Your task to perform on an android device: change the clock display to digital Image 0: 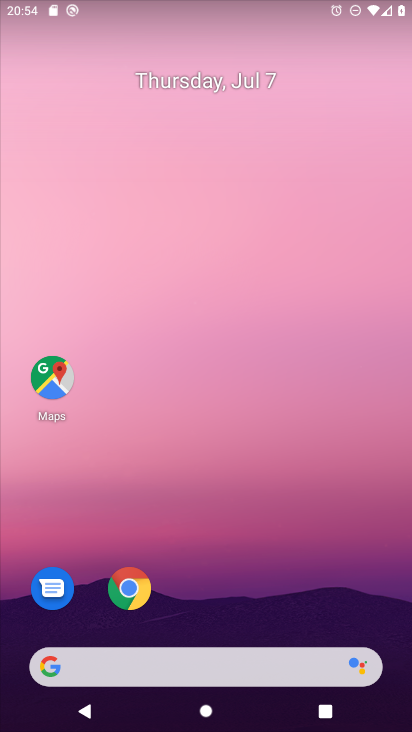
Step 0: drag from (214, 543) to (204, 244)
Your task to perform on an android device: change the clock display to digital Image 1: 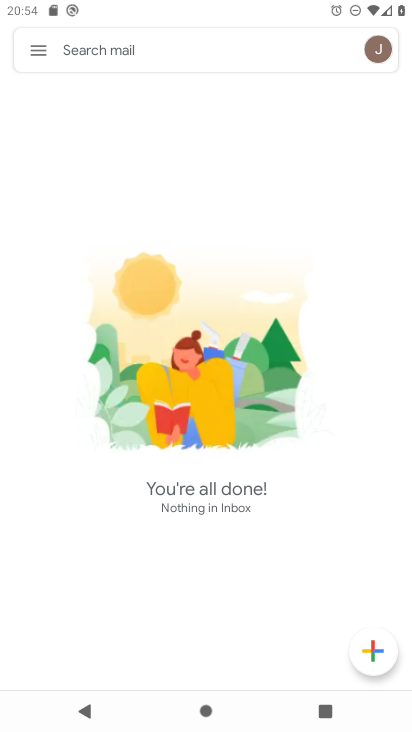
Step 1: press home button
Your task to perform on an android device: change the clock display to digital Image 2: 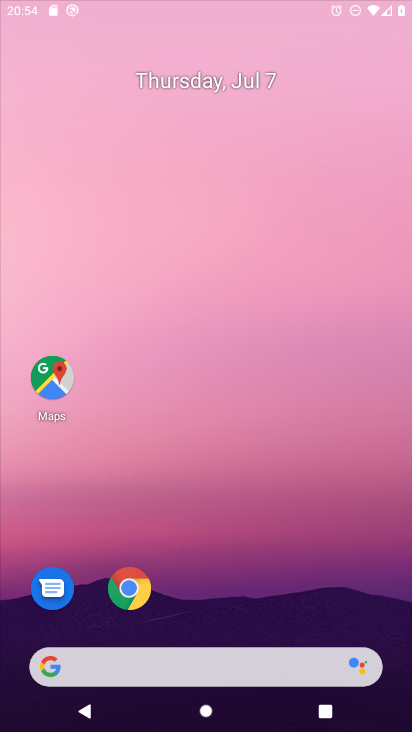
Step 2: drag from (263, 624) to (241, 256)
Your task to perform on an android device: change the clock display to digital Image 3: 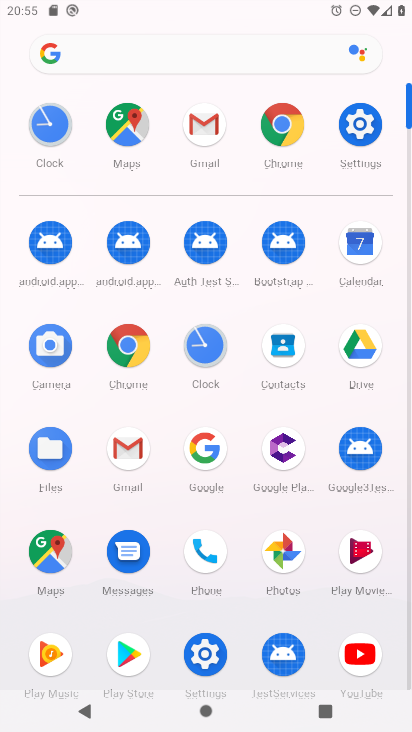
Step 3: click (217, 346)
Your task to perform on an android device: change the clock display to digital Image 4: 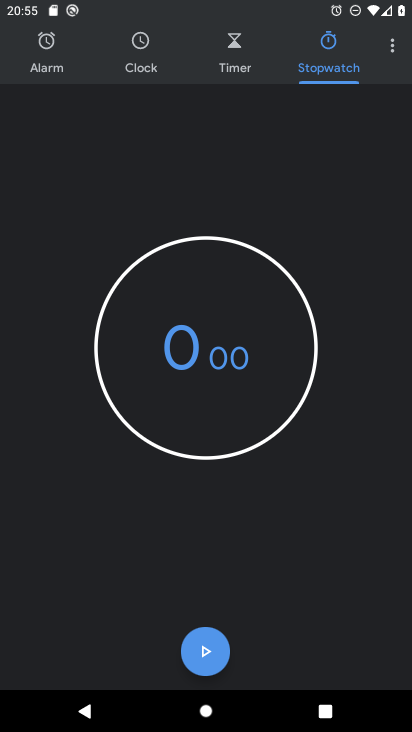
Step 4: click (393, 33)
Your task to perform on an android device: change the clock display to digital Image 5: 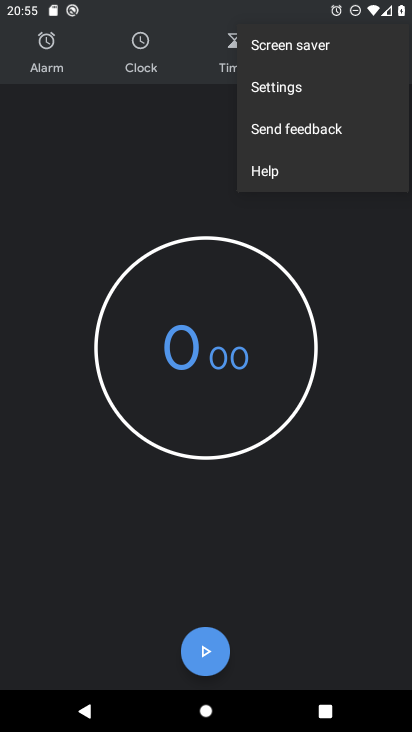
Step 5: click (314, 83)
Your task to perform on an android device: change the clock display to digital Image 6: 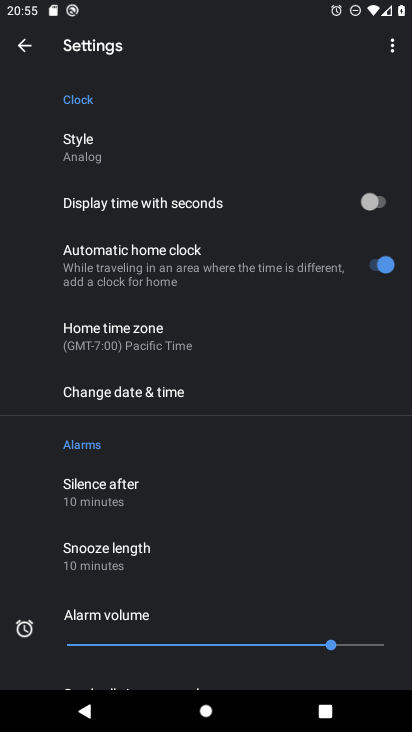
Step 6: click (114, 149)
Your task to perform on an android device: change the clock display to digital Image 7: 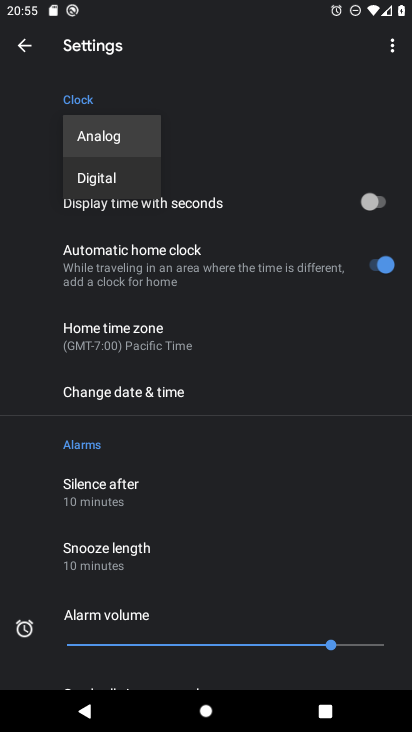
Step 7: click (114, 175)
Your task to perform on an android device: change the clock display to digital Image 8: 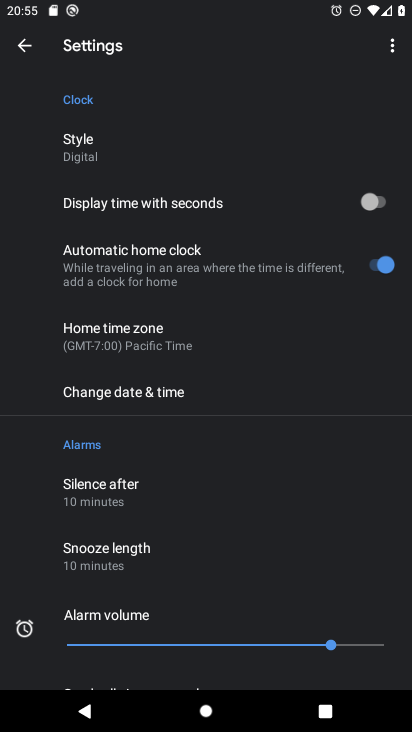
Step 8: task complete